Your task to perform on an android device: choose inbox layout in the gmail app Image 0: 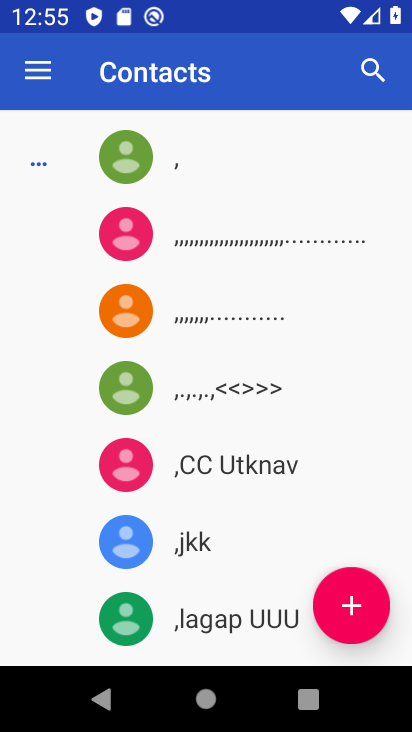
Step 0: press home button
Your task to perform on an android device: choose inbox layout in the gmail app Image 1: 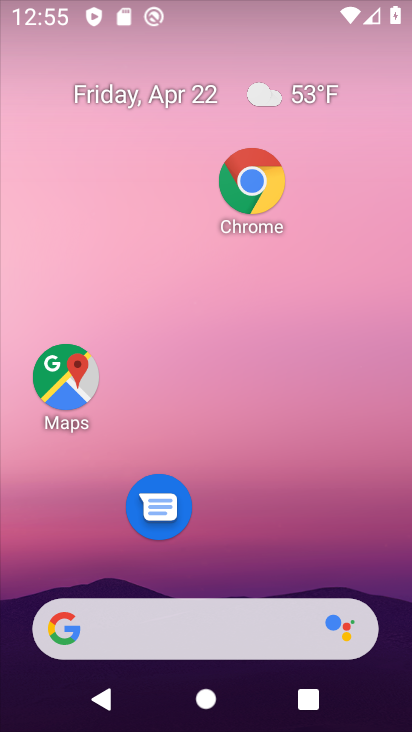
Step 1: drag from (252, 511) to (268, 59)
Your task to perform on an android device: choose inbox layout in the gmail app Image 2: 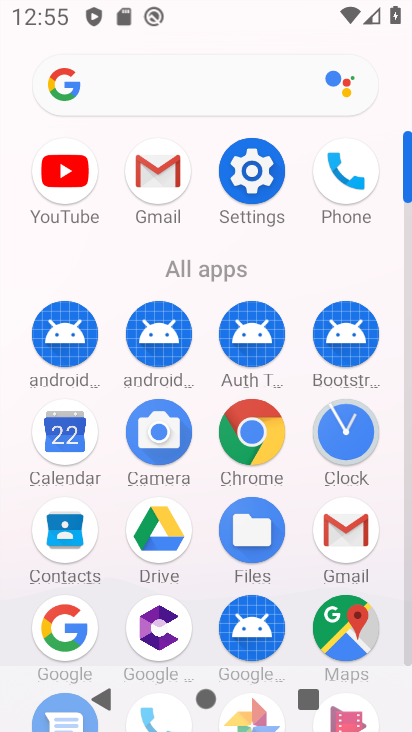
Step 2: click (338, 522)
Your task to perform on an android device: choose inbox layout in the gmail app Image 3: 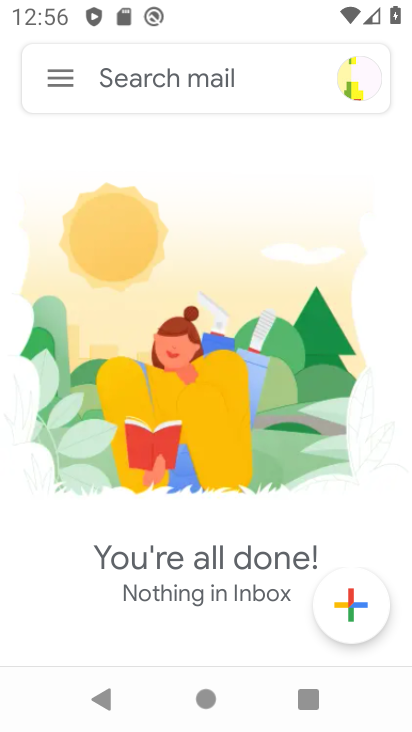
Step 3: click (51, 86)
Your task to perform on an android device: choose inbox layout in the gmail app Image 4: 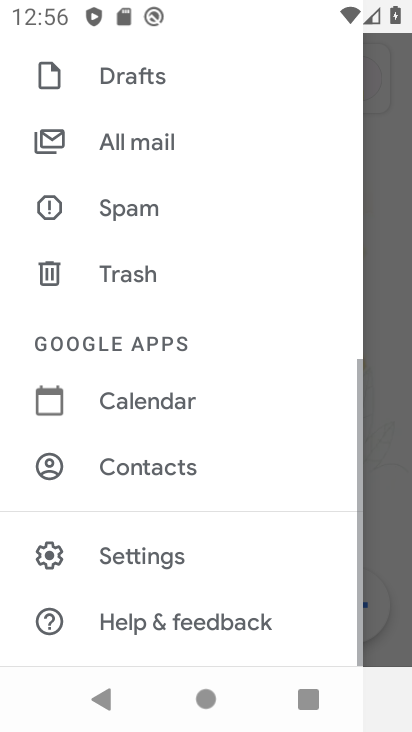
Step 4: drag from (130, 470) to (152, 295)
Your task to perform on an android device: choose inbox layout in the gmail app Image 5: 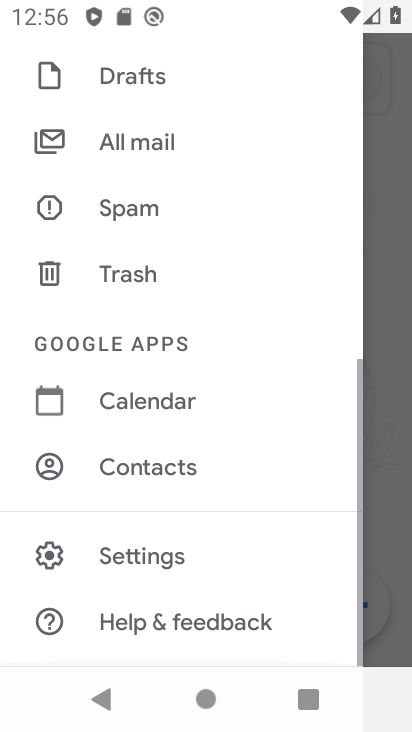
Step 5: click (166, 575)
Your task to perform on an android device: choose inbox layout in the gmail app Image 6: 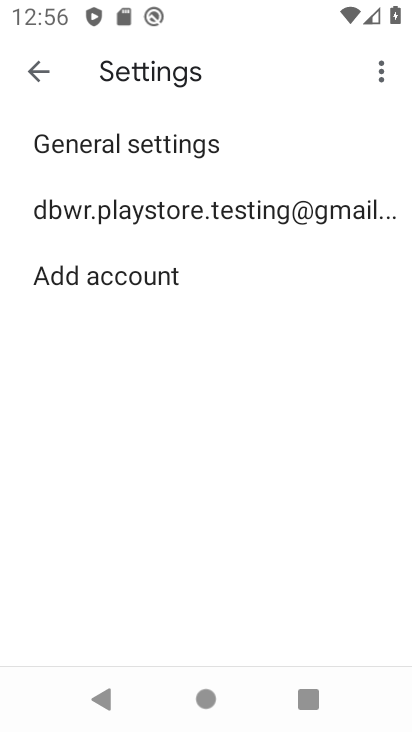
Step 6: click (227, 233)
Your task to perform on an android device: choose inbox layout in the gmail app Image 7: 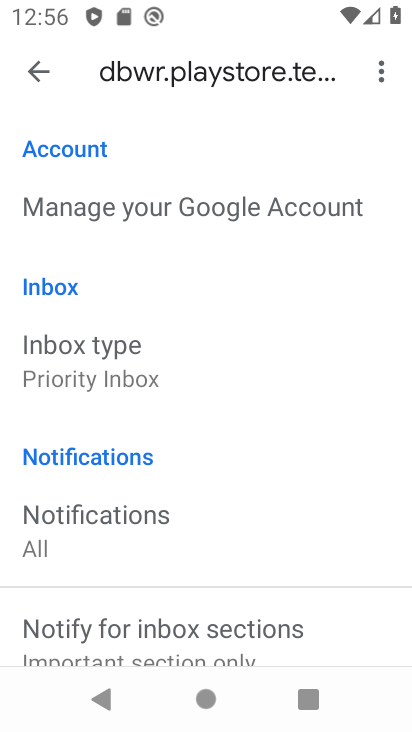
Step 7: click (142, 362)
Your task to perform on an android device: choose inbox layout in the gmail app Image 8: 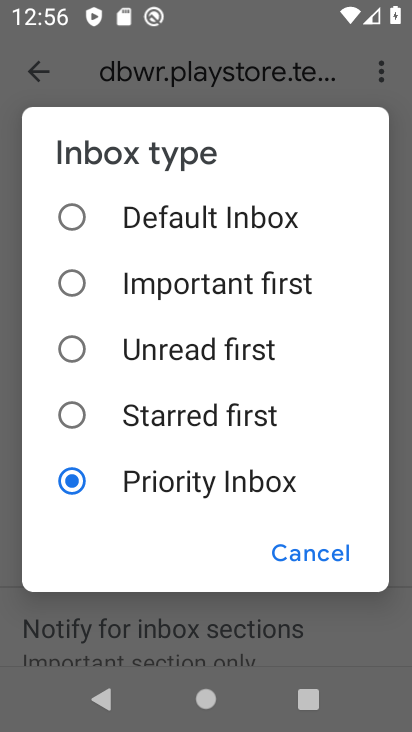
Step 8: click (186, 372)
Your task to perform on an android device: choose inbox layout in the gmail app Image 9: 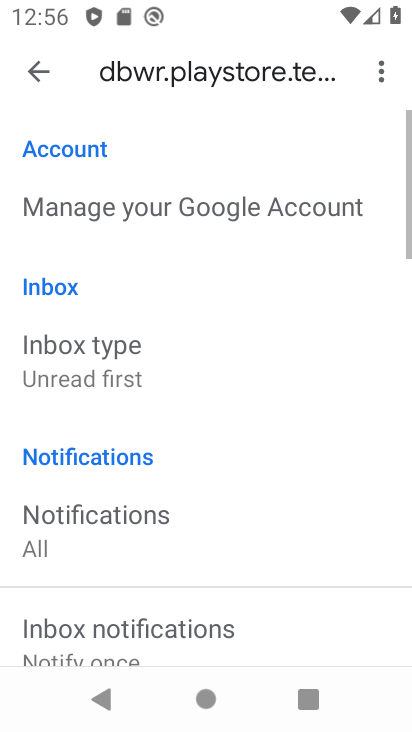
Step 9: task complete